Your task to perform on an android device: check google app version Image 0: 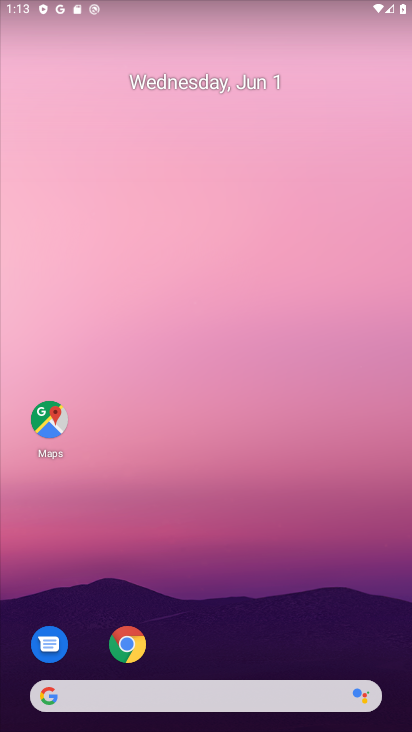
Step 0: drag from (285, 216) to (307, 104)
Your task to perform on an android device: check google app version Image 1: 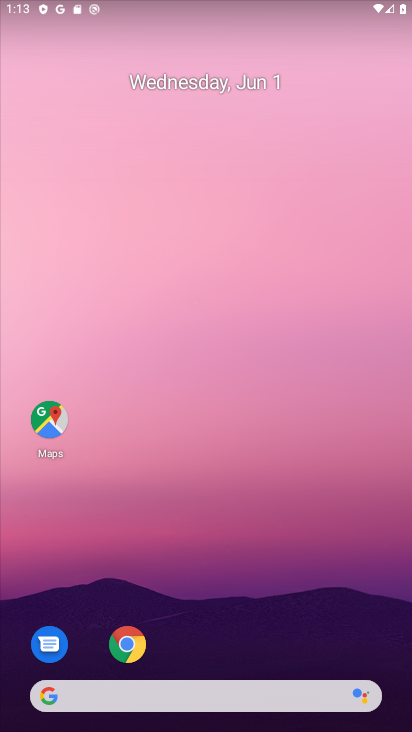
Step 1: drag from (151, 690) to (308, 166)
Your task to perform on an android device: check google app version Image 2: 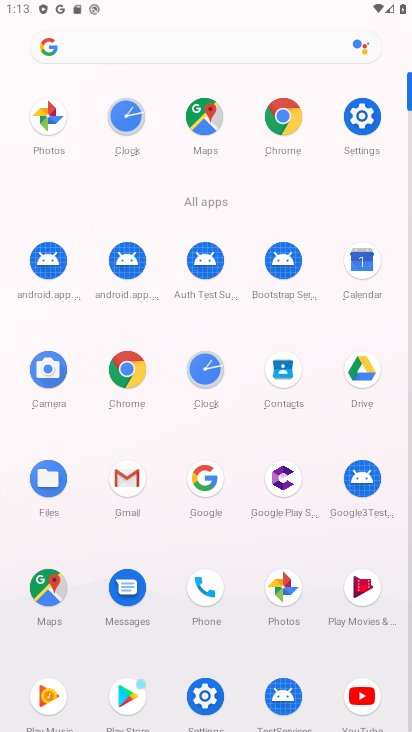
Step 2: drag from (204, 483) to (249, 528)
Your task to perform on an android device: check google app version Image 3: 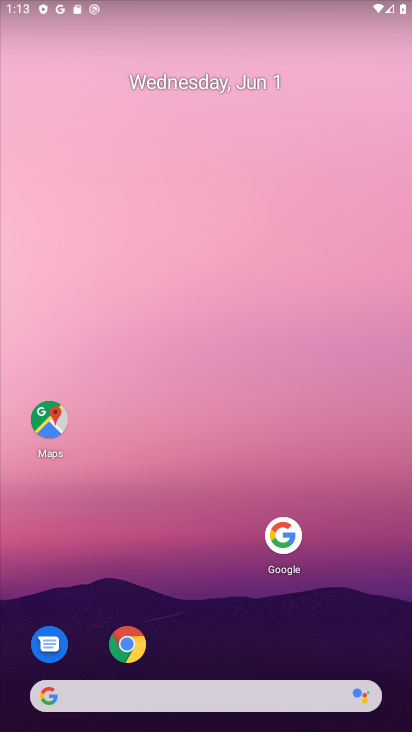
Step 3: click (287, 537)
Your task to perform on an android device: check google app version Image 4: 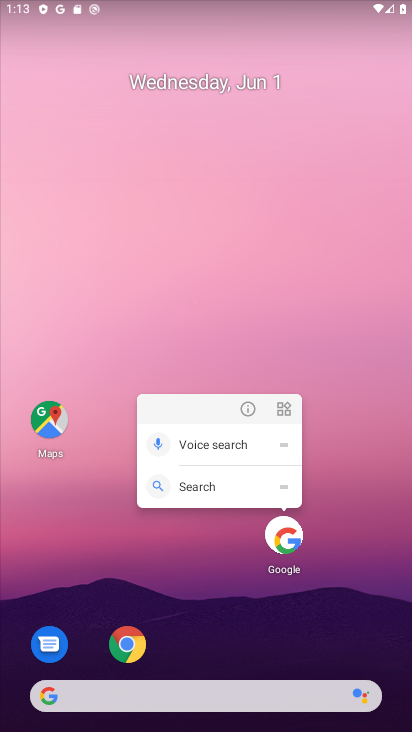
Step 4: click (249, 408)
Your task to perform on an android device: check google app version Image 5: 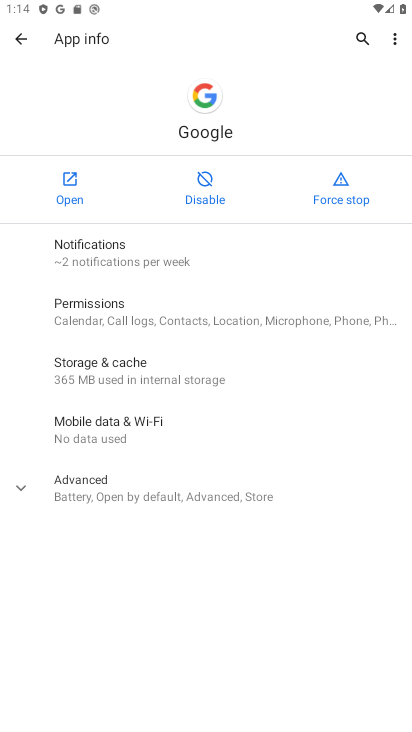
Step 5: click (88, 494)
Your task to perform on an android device: check google app version Image 6: 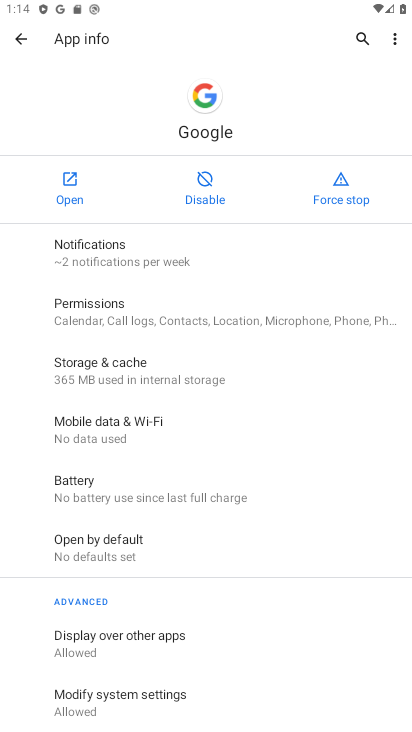
Step 6: task complete